Your task to perform on an android device: Search for jbl charge 4 on newegg, select the first entry, add it to the cart, then select checkout. Image 0: 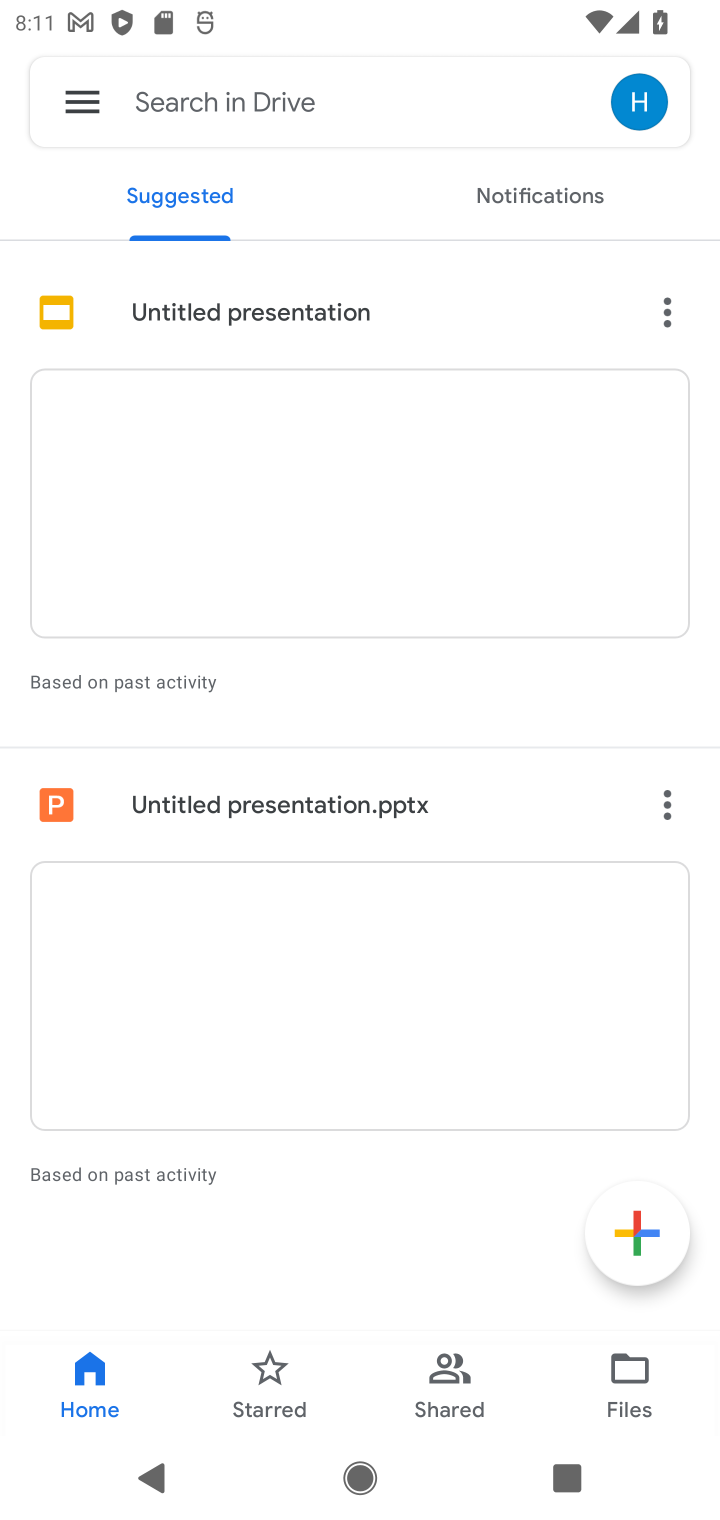
Step 0: press home button
Your task to perform on an android device: Search for jbl charge 4 on newegg, select the first entry, add it to the cart, then select checkout. Image 1: 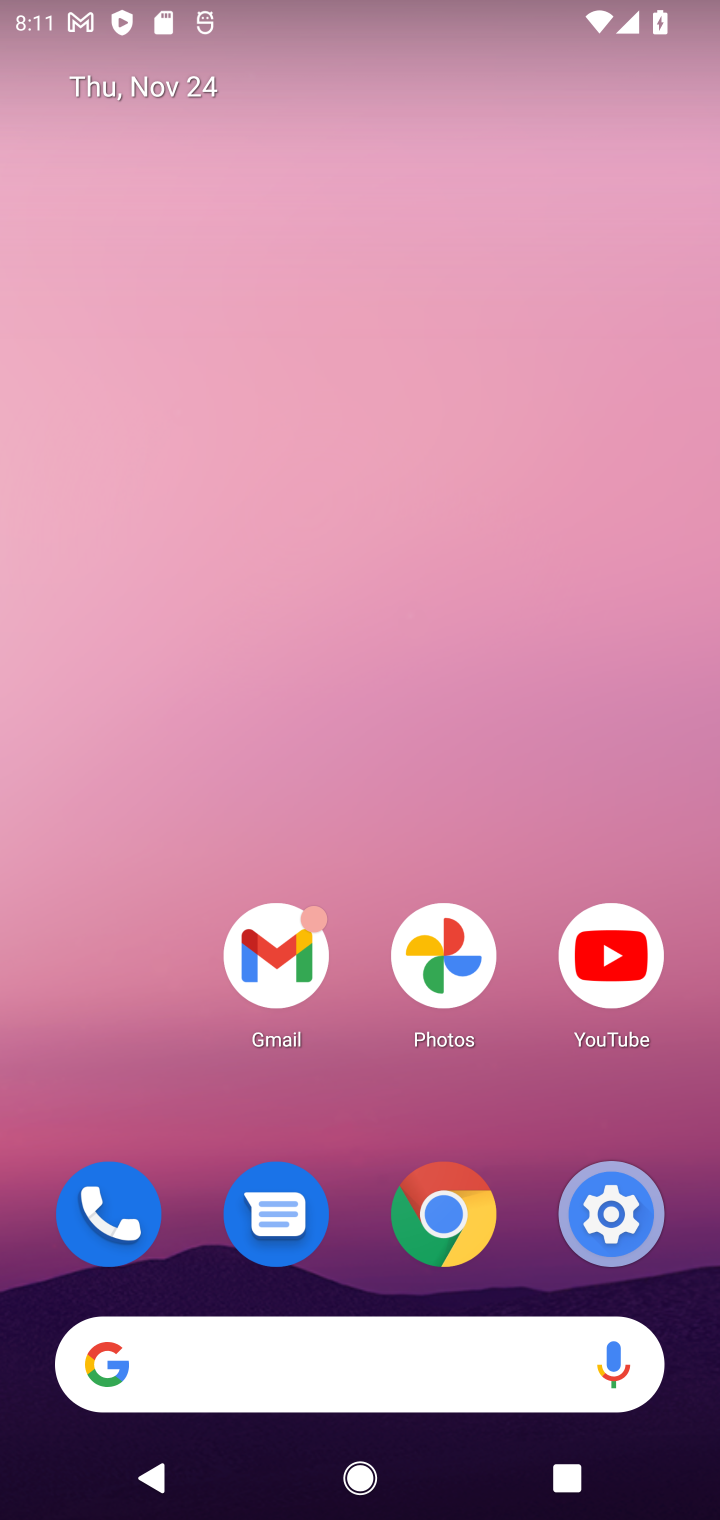
Step 1: click (305, 1372)
Your task to perform on an android device: Search for jbl charge 4 on newegg, select the first entry, add it to the cart, then select checkout. Image 2: 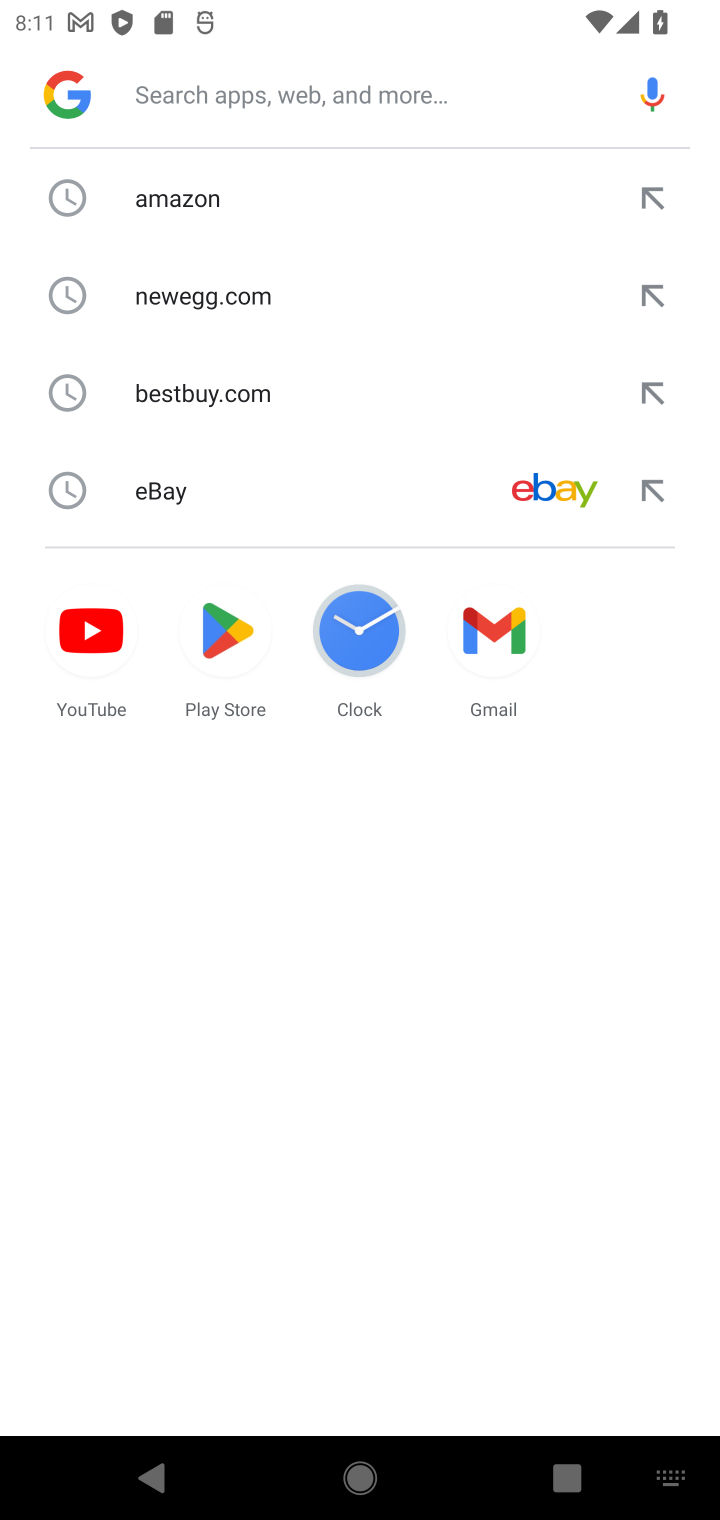
Step 2: type "newegg.com"
Your task to perform on an android device: Search for jbl charge 4 on newegg, select the first entry, add it to the cart, then select checkout. Image 3: 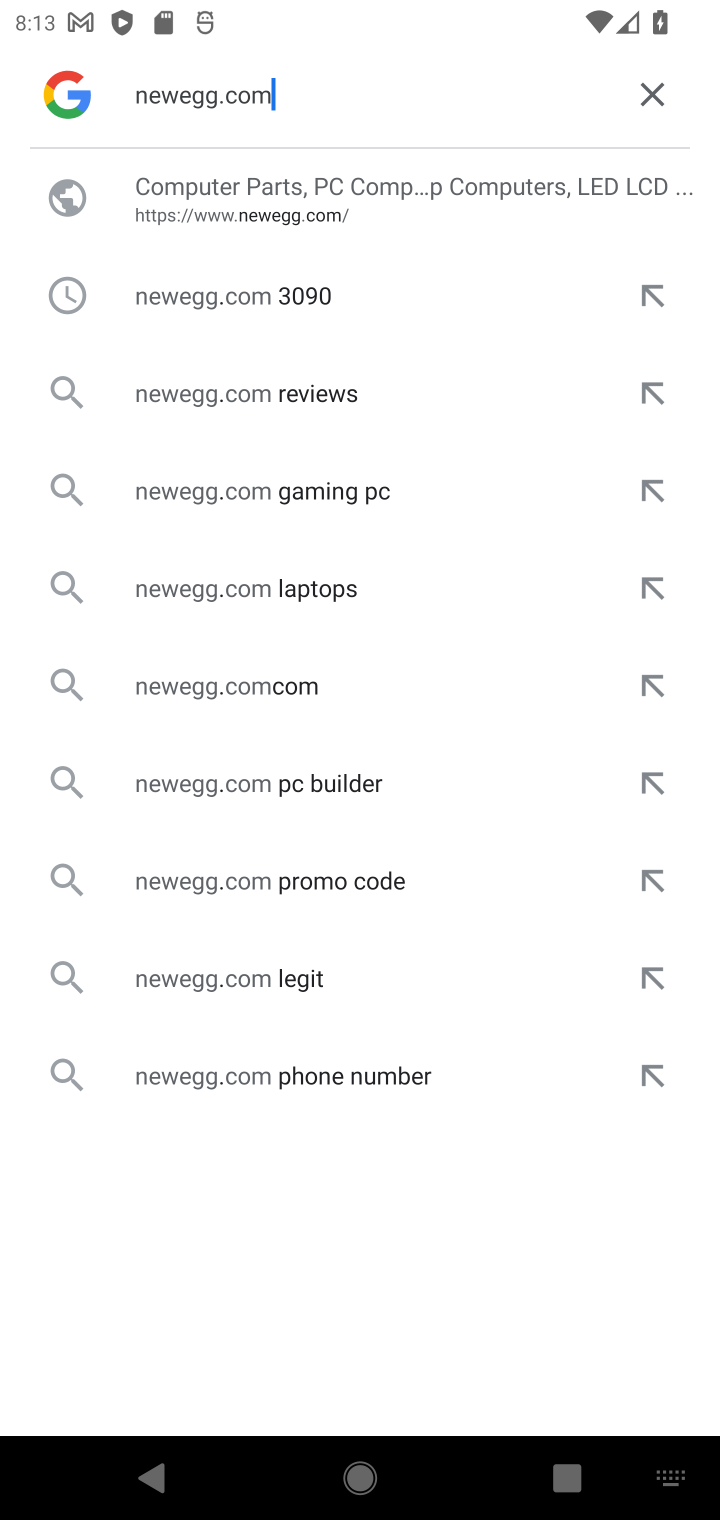
Step 3: click (158, 242)
Your task to perform on an android device: Search for jbl charge 4 on newegg, select the first entry, add it to the cart, then select checkout. Image 4: 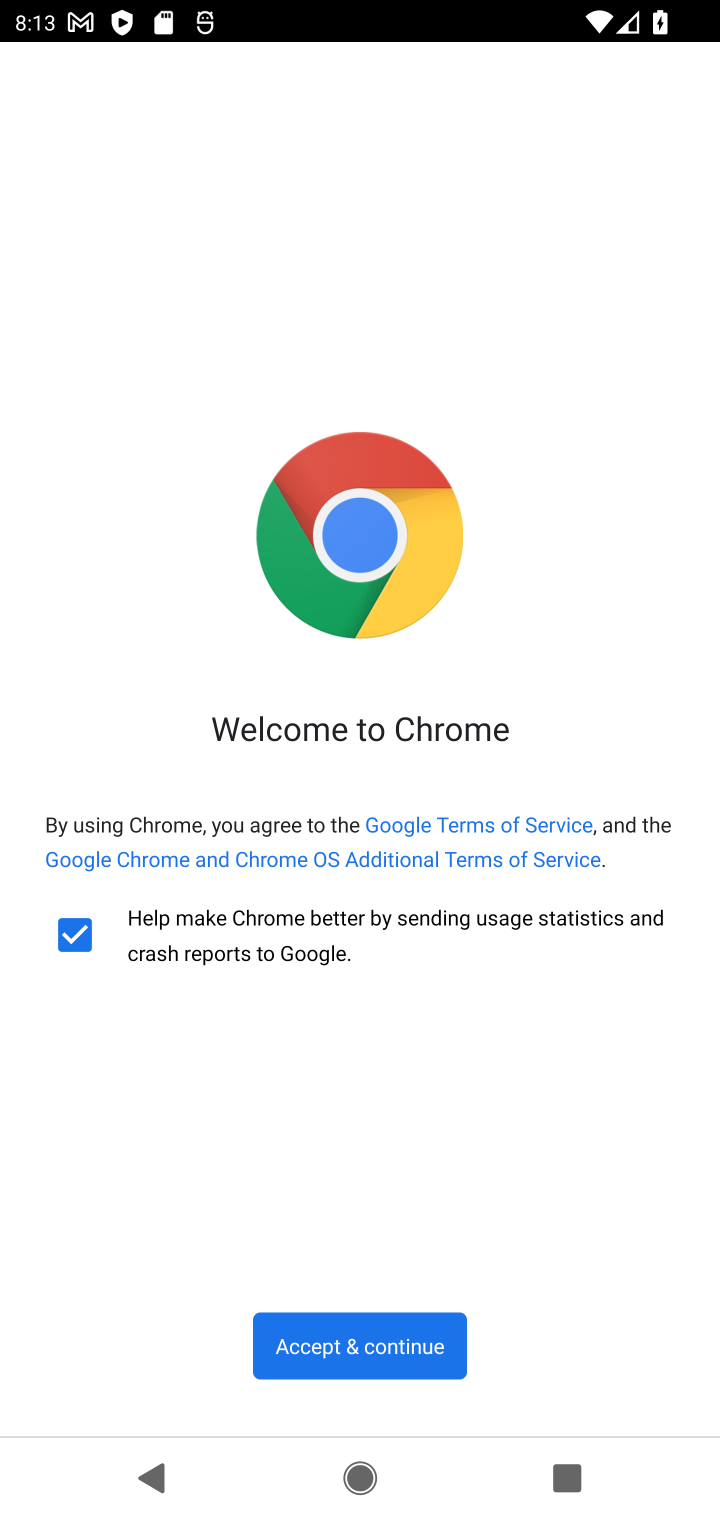
Step 4: click (379, 1344)
Your task to perform on an android device: Search for jbl charge 4 on newegg, select the first entry, add it to the cart, then select checkout. Image 5: 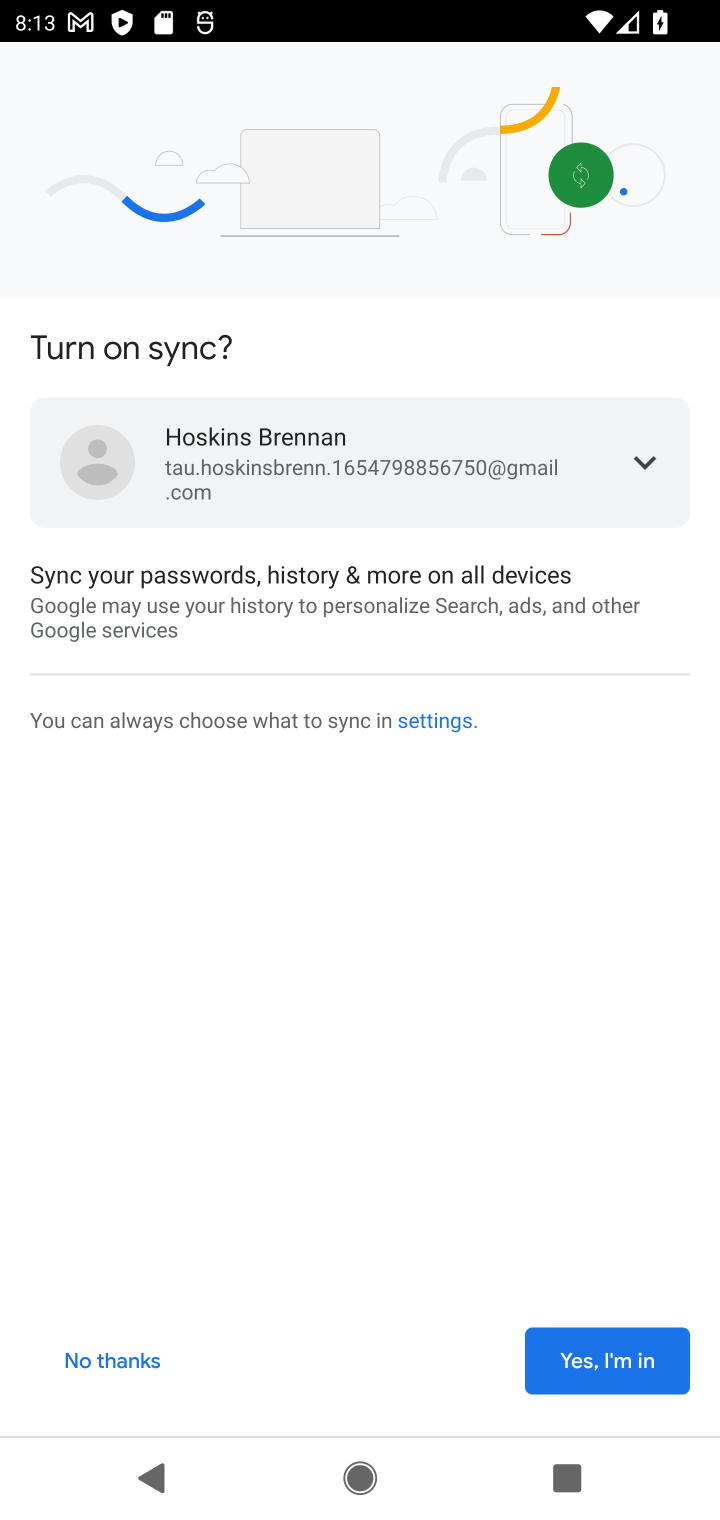
Step 5: click (605, 1383)
Your task to perform on an android device: Search for jbl charge 4 on newegg, select the first entry, add it to the cart, then select checkout. Image 6: 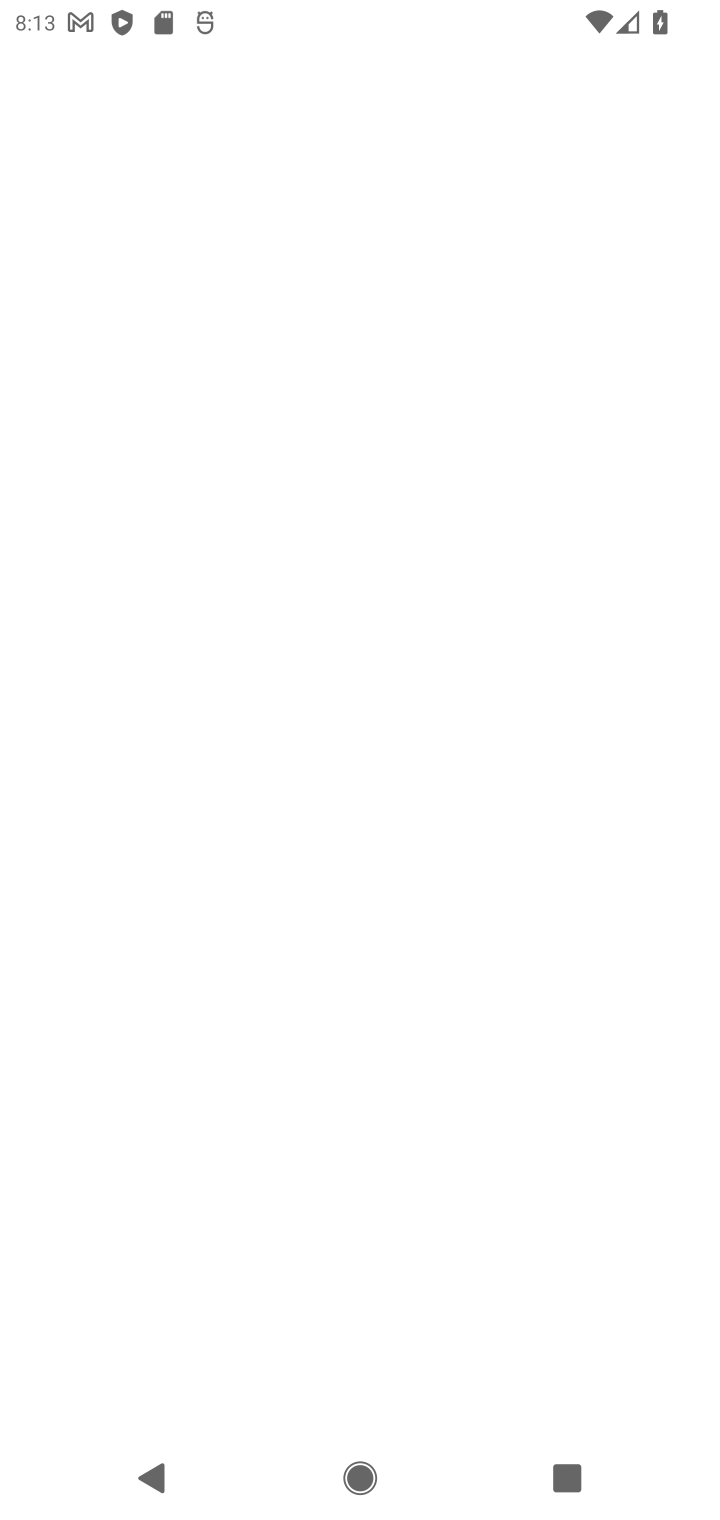
Step 6: click (605, 1383)
Your task to perform on an android device: Search for jbl charge 4 on newegg, select the first entry, add it to the cart, then select checkout. Image 7: 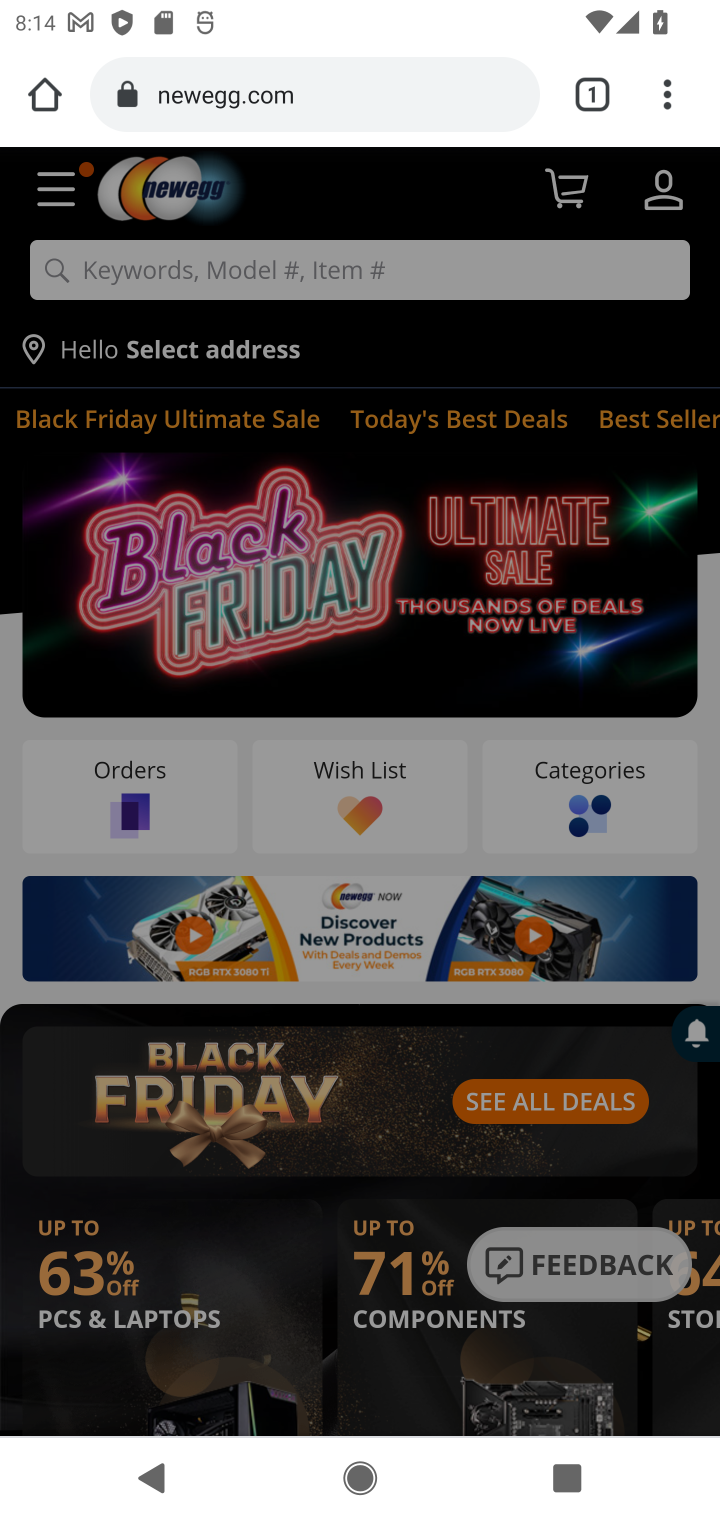
Step 7: task complete